Your task to perform on an android device: create a new album in the google photos Image 0: 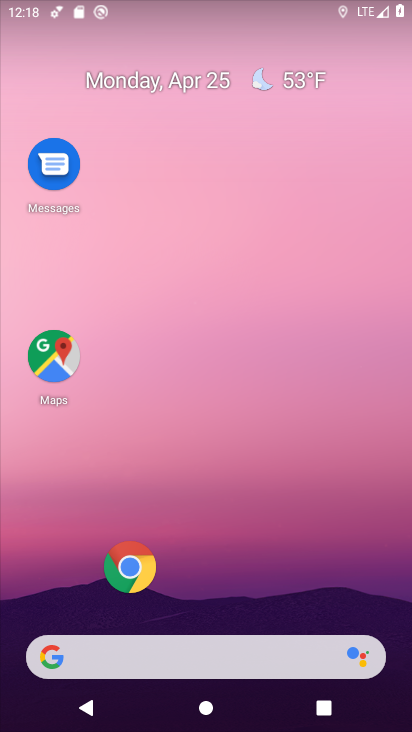
Step 0: click (234, 186)
Your task to perform on an android device: create a new album in the google photos Image 1: 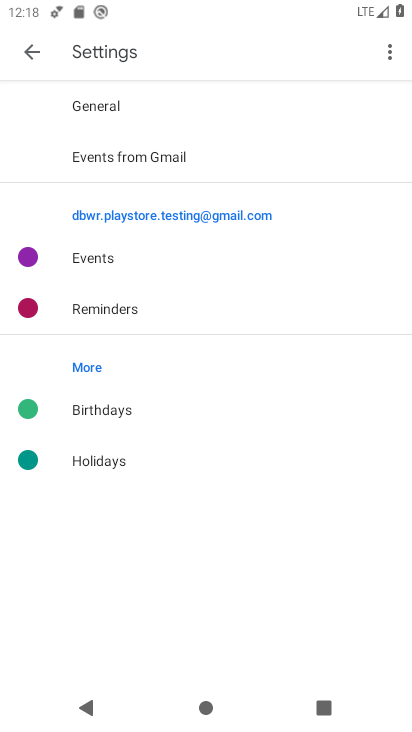
Step 1: press home button
Your task to perform on an android device: create a new album in the google photos Image 2: 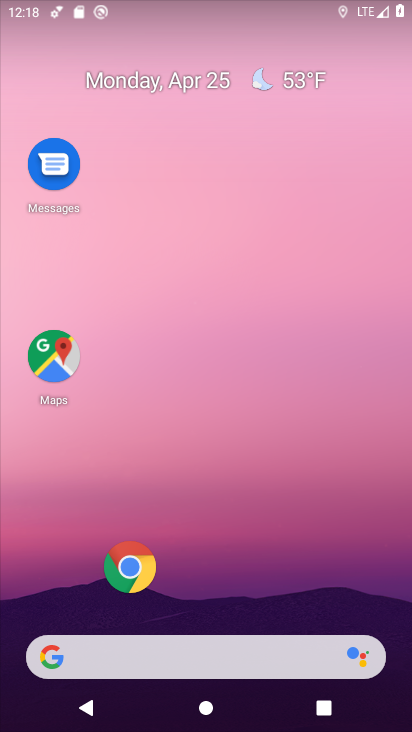
Step 2: drag from (256, 490) to (301, 2)
Your task to perform on an android device: create a new album in the google photos Image 3: 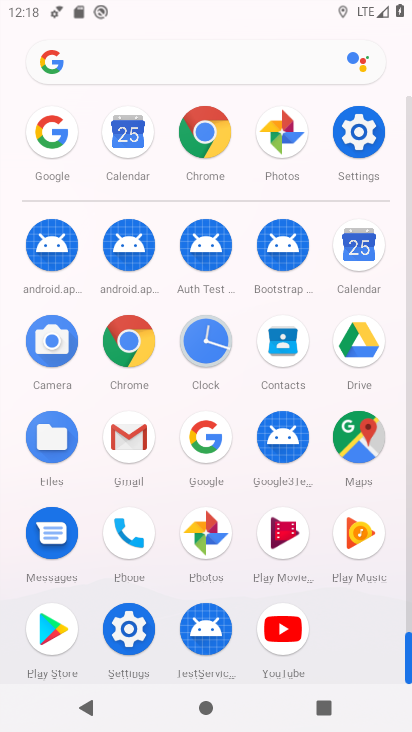
Step 3: click (216, 539)
Your task to perform on an android device: create a new album in the google photos Image 4: 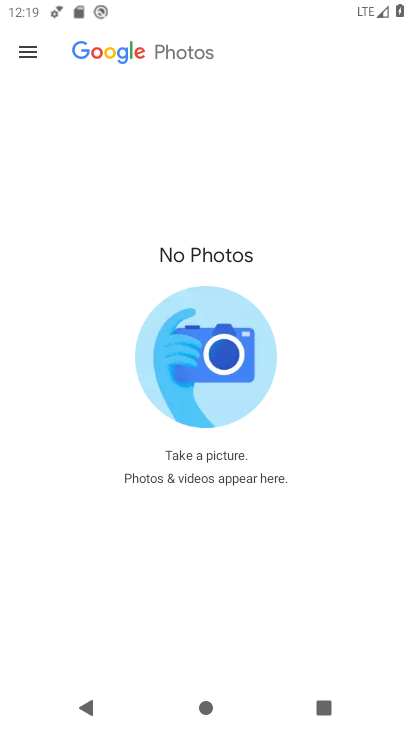
Step 4: click (25, 54)
Your task to perform on an android device: create a new album in the google photos Image 5: 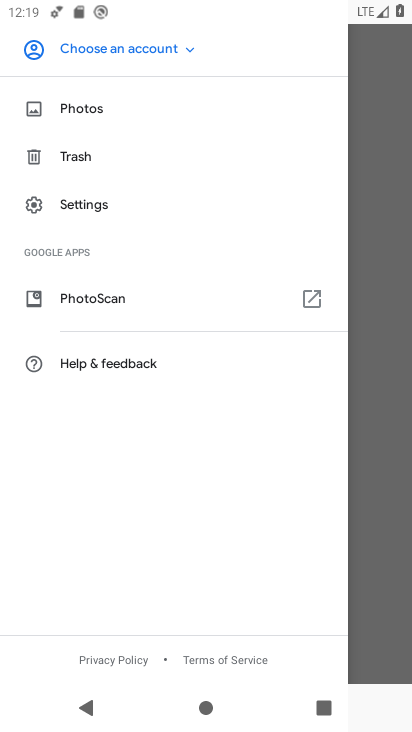
Step 5: task complete